Your task to perform on an android device: open app "Google Pay: Save, Pay, Manage" Image 0: 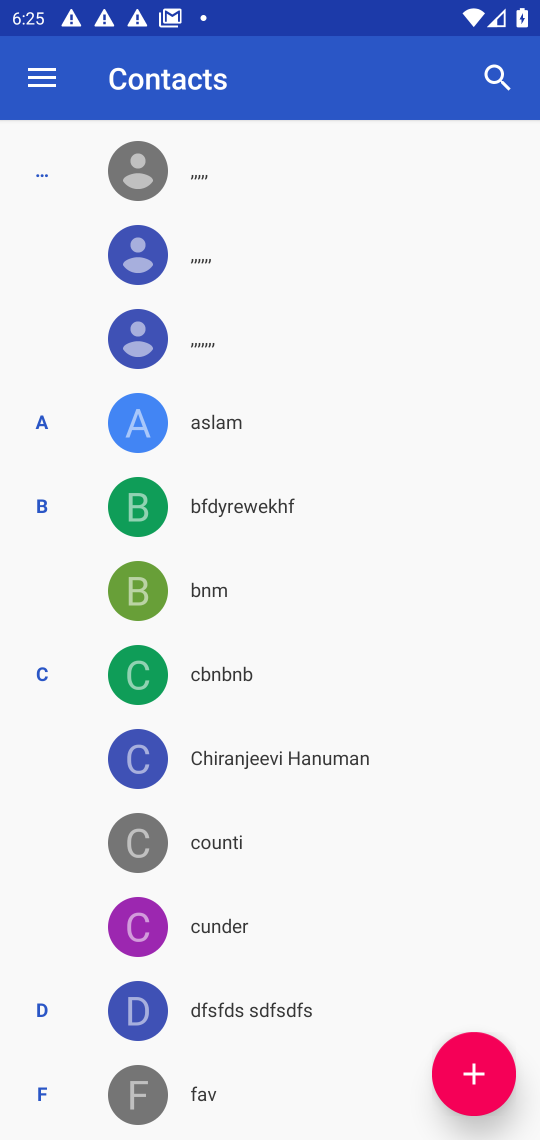
Step 0: press home button
Your task to perform on an android device: open app "Google Pay: Save, Pay, Manage" Image 1: 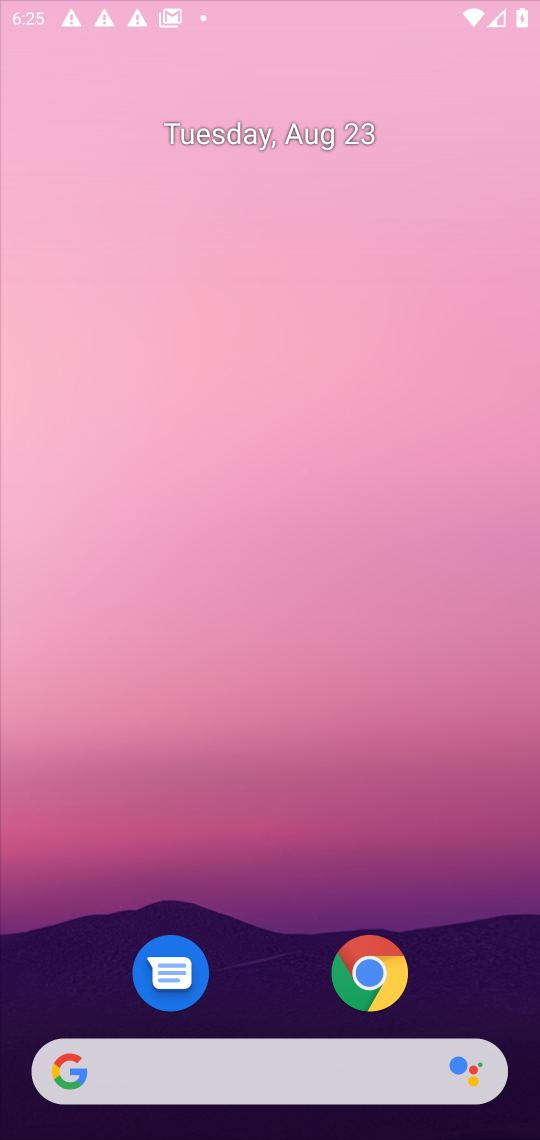
Step 1: drag from (265, 898) to (247, 145)
Your task to perform on an android device: open app "Google Pay: Save, Pay, Manage" Image 2: 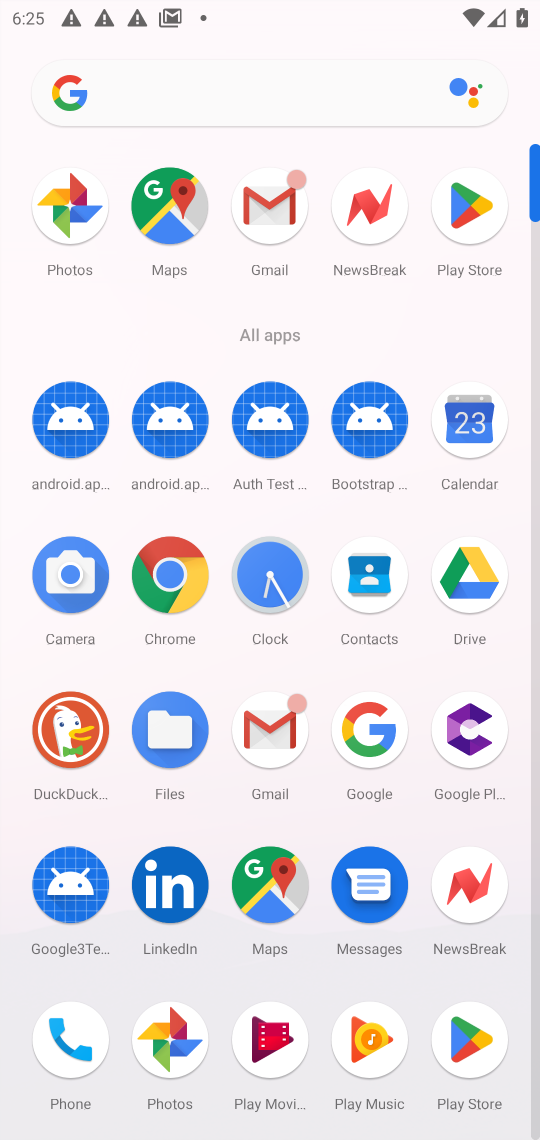
Step 2: click (448, 189)
Your task to perform on an android device: open app "Google Pay: Save, Pay, Manage" Image 3: 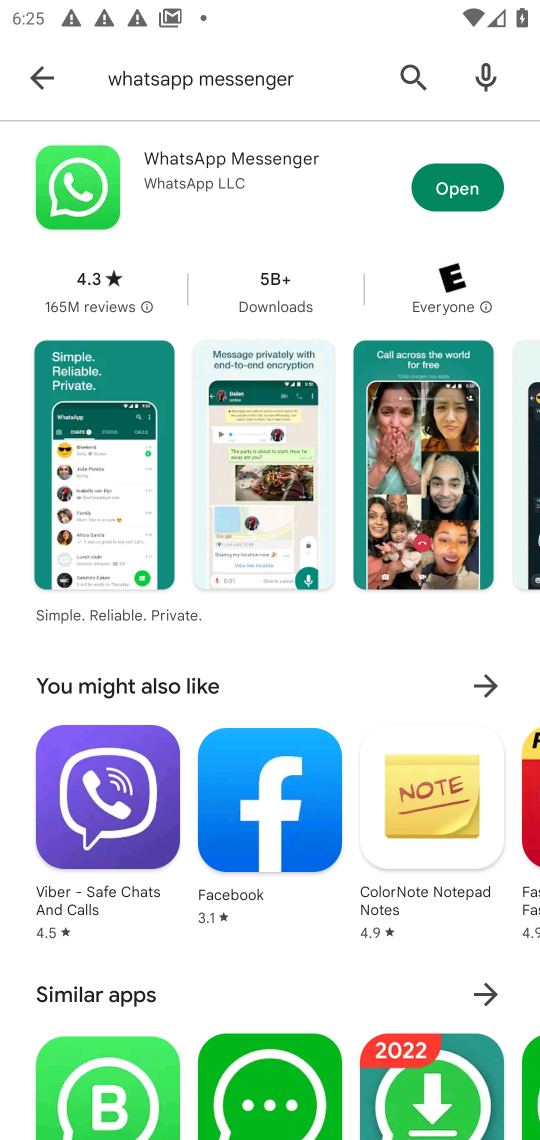
Step 3: click (383, 69)
Your task to perform on an android device: open app "Google Pay: Save, Pay, Manage" Image 4: 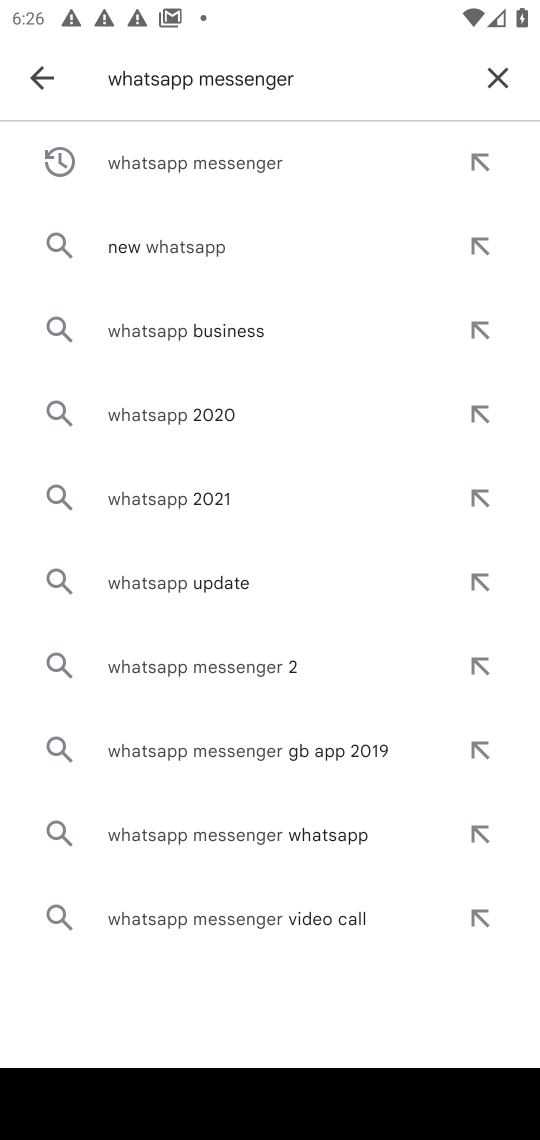
Step 4: click (512, 61)
Your task to perform on an android device: open app "Google Pay: Save, Pay, Manage" Image 5: 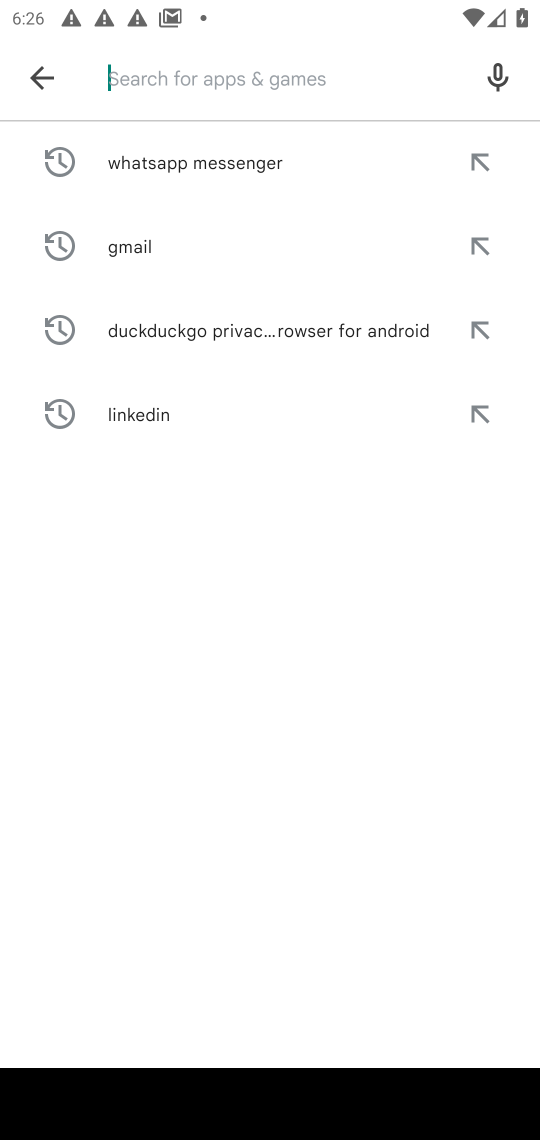
Step 5: type "Google Pay: Save, Pay, Manage"
Your task to perform on an android device: open app "Google Pay: Save, Pay, Manage" Image 6: 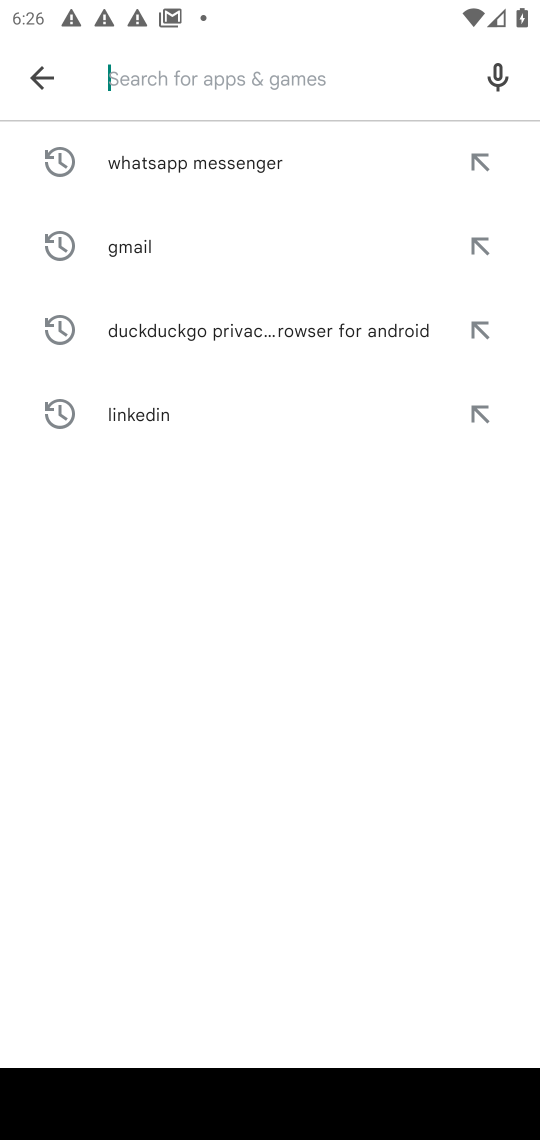
Step 6: click (325, 588)
Your task to perform on an android device: open app "Google Pay: Save, Pay, Manage" Image 7: 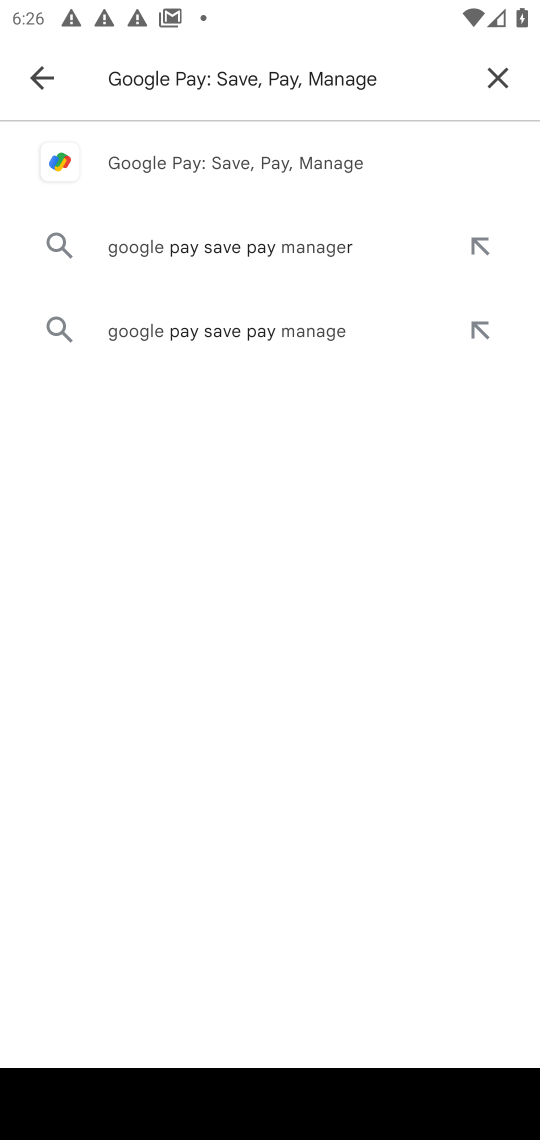
Step 7: click (266, 177)
Your task to perform on an android device: open app "Google Pay: Save, Pay, Manage" Image 8: 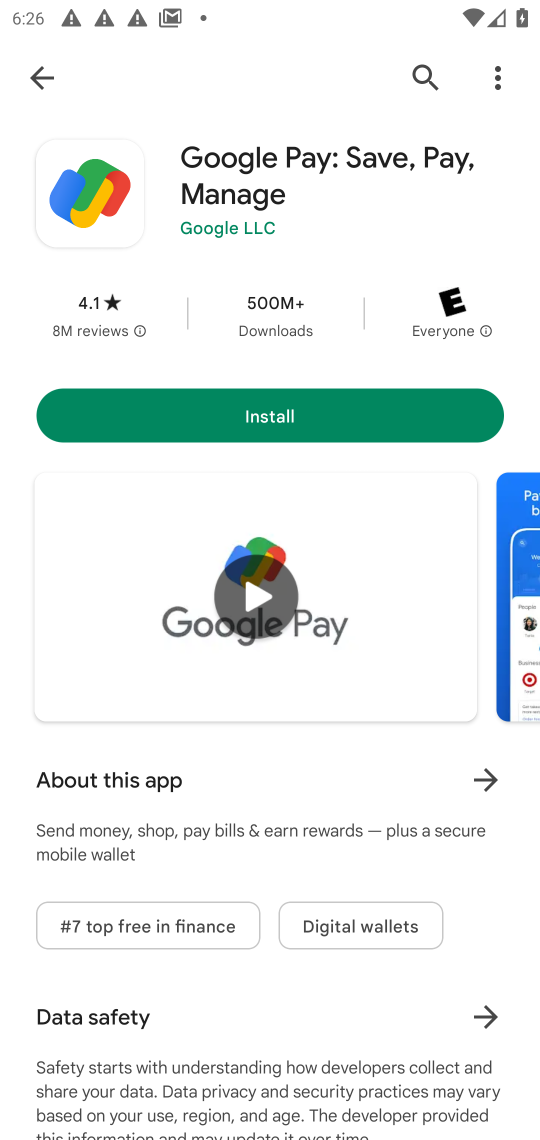
Step 8: task complete